Your task to perform on an android device: Open calendar and show me the fourth week of next month Image 0: 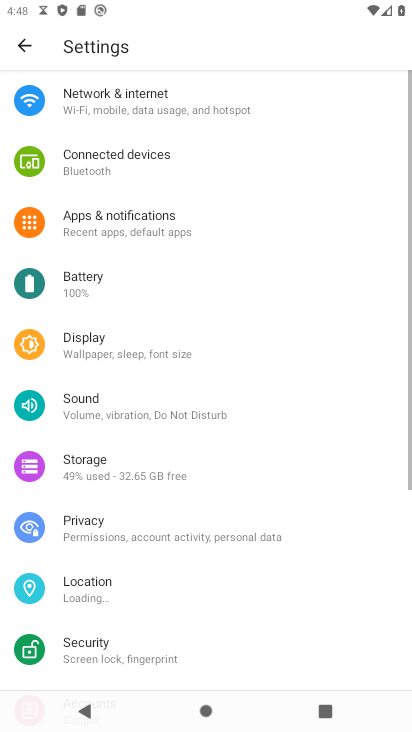
Step 0: press back button
Your task to perform on an android device: Open calendar and show me the fourth week of next month Image 1: 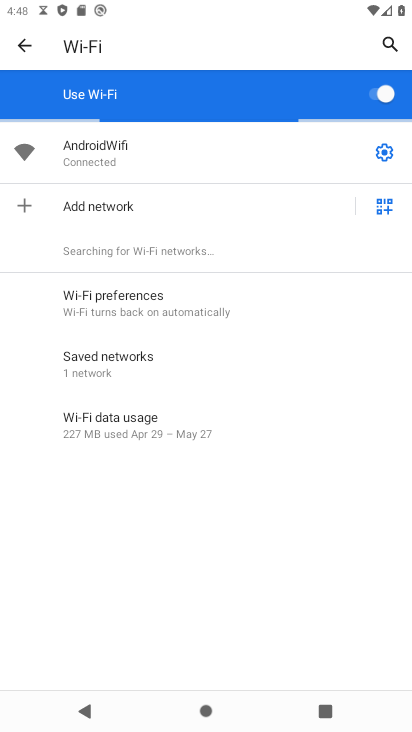
Step 1: press back button
Your task to perform on an android device: Open calendar and show me the fourth week of next month Image 2: 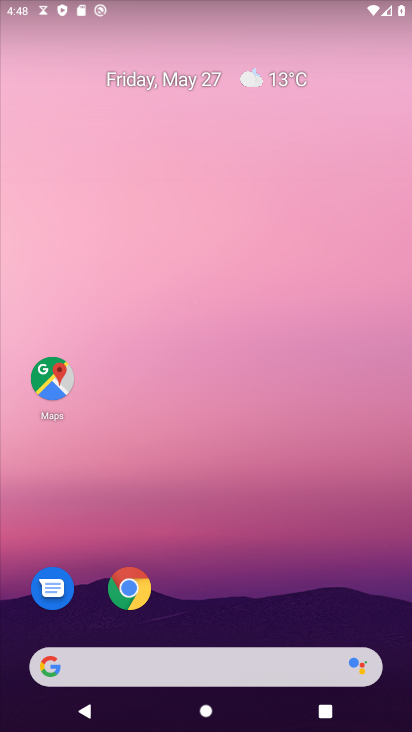
Step 2: drag from (267, 605) to (347, 12)
Your task to perform on an android device: Open calendar and show me the fourth week of next month Image 3: 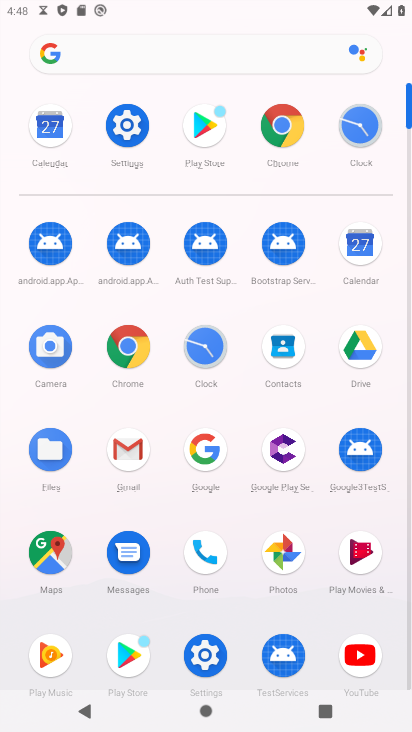
Step 3: click (385, 240)
Your task to perform on an android device: Open calendar and show me the fourth week of next month Image 4: 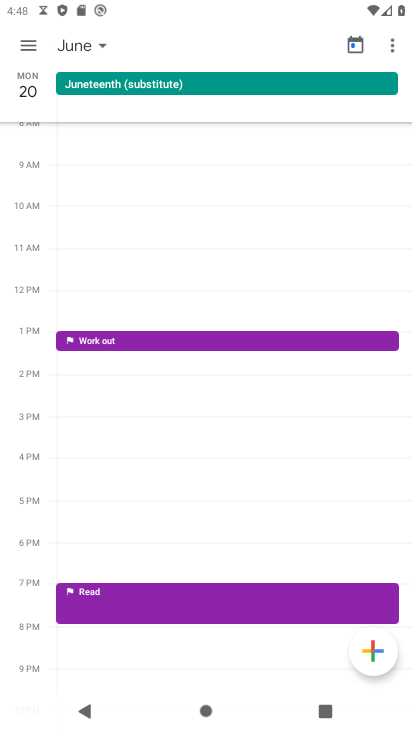
Step 4: click (89, 48)
Your task to perform on an android device: Open calendar and show me the fourth week of next month Image 5: 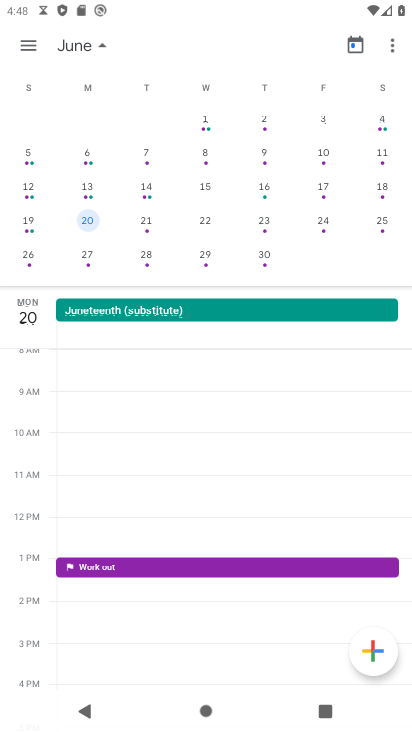
Step 5: click (83, 221)
Your task to perform on an android device: Open calendar and show me the fourth week of next month Image 6: 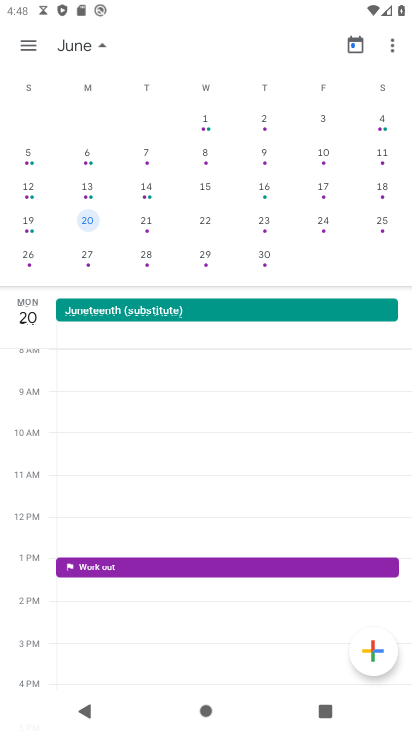
Step 6: task complete